Your task to perform on an android device: turn on priority inbox in the gmail app Image 0: 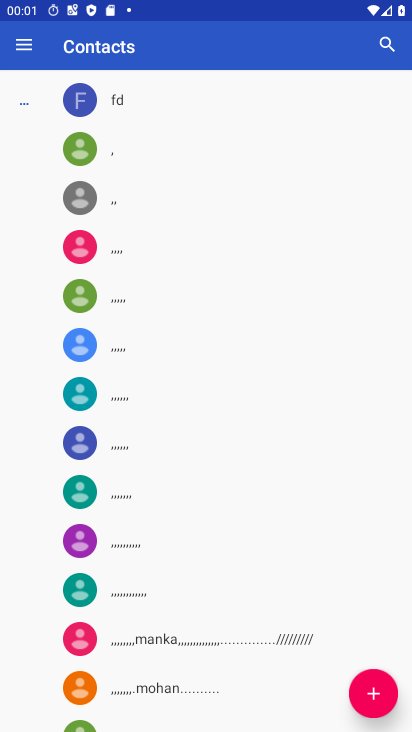
Step 0: press home button
Your task to perform on an android device: turn on priority inbox in the gmail app Image 1: 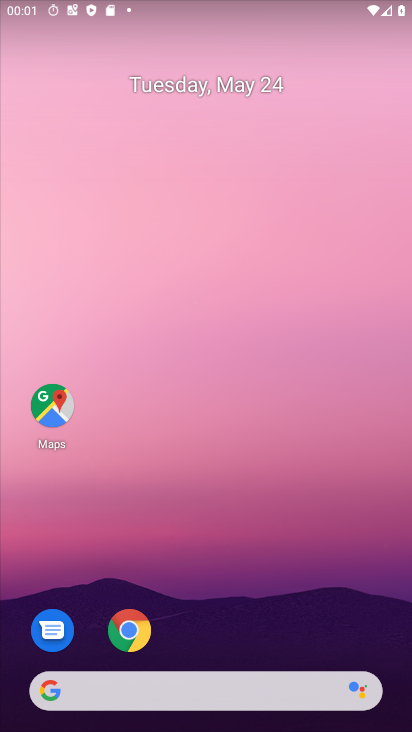
Step 1: drag from (296, 609) to (297, 0)
Your task to perform on an android device: turn on priority inbox in the gmail app Image 2: 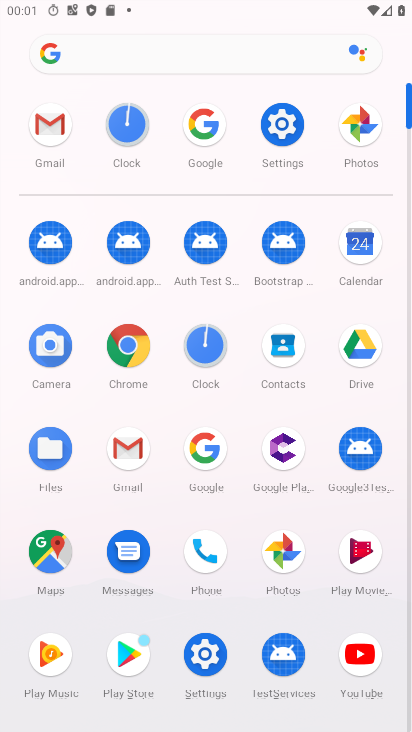
Step 2: click (51, 133)
Your task to perform on an android device: turn on priority inbox in the gmail app Image 3: 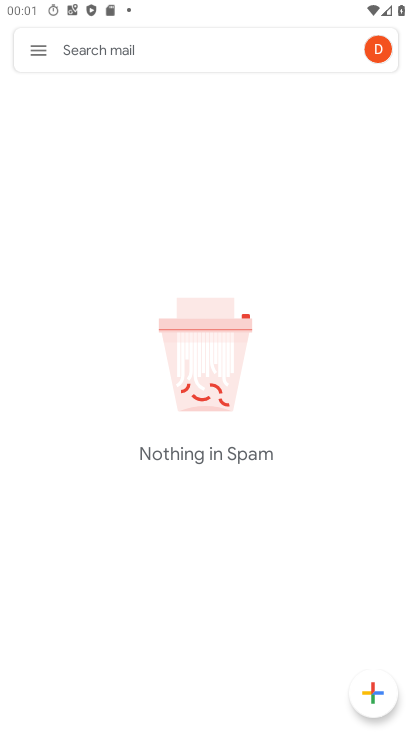
Step 3: click (37, 42)
Your task to perform on an android device: turn on priority inbox in the gmail app Image 4: 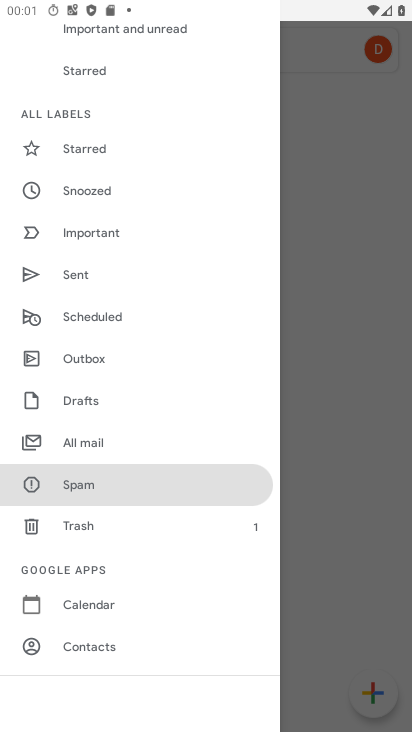
Step 4: drag from (148, 603) to (142, 443)
Your task to perform on an android device: turn on priority inbox in the gmail app Image 5: 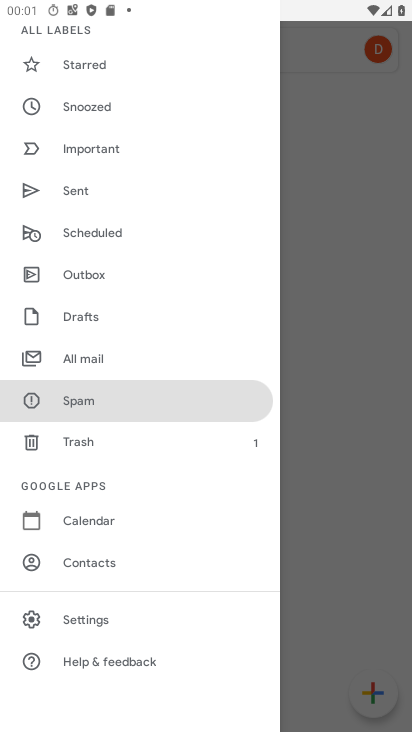
Step 5: click (80, 621)
Your task to perform on an android device: turn on priority inbox in the gmail app Image 6: 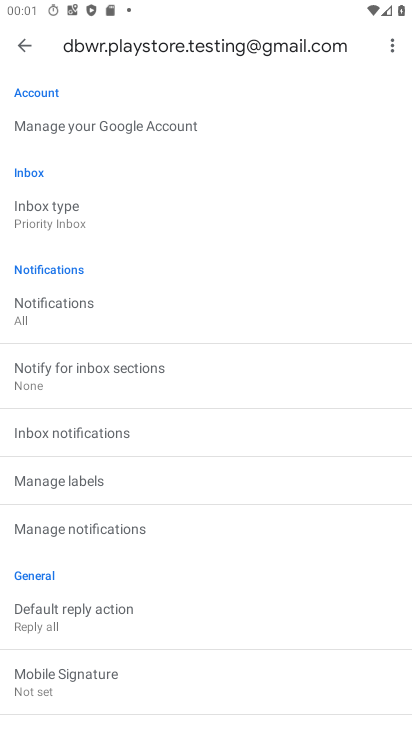
Step 6: click (47, 218)
Your task to perform on an android device: turn on priority inbox in the gmail app Image 7: 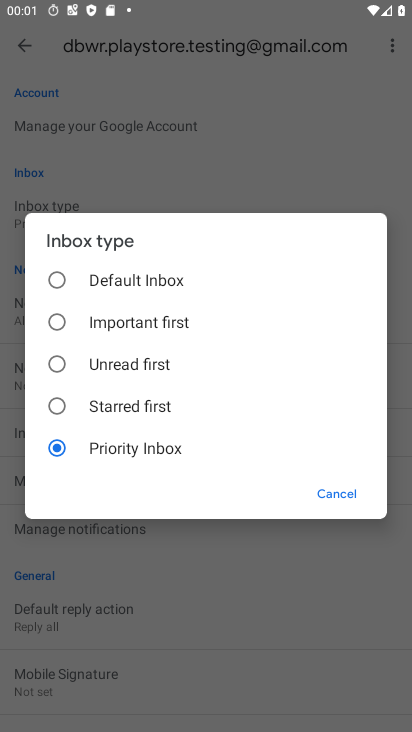
Step 7: task complete